Your task to perform on an android device: Check the weather Image 0: 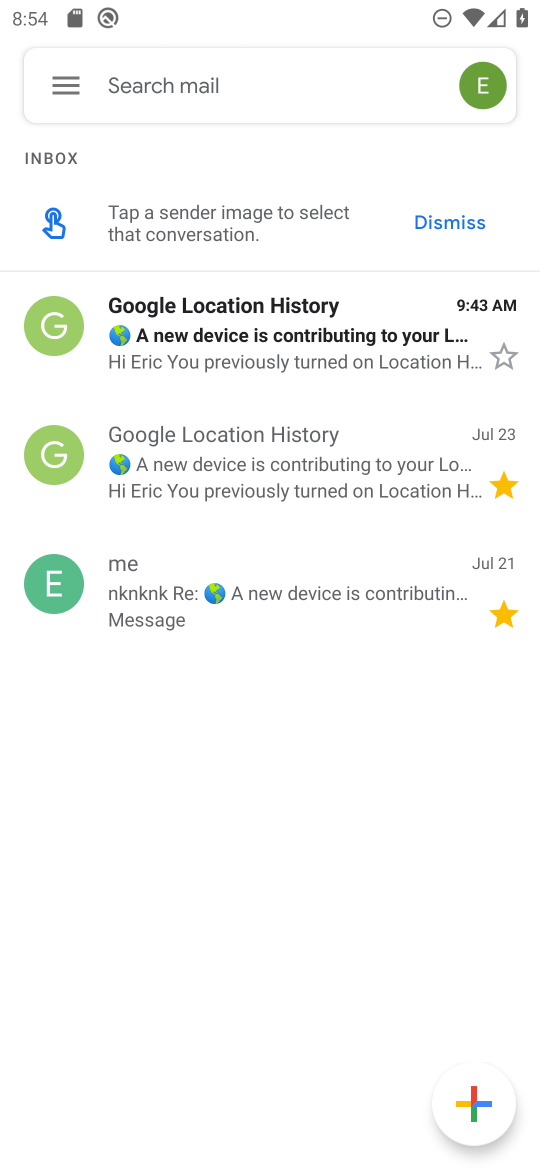
Step 0: press home button
Your task to perform on an android device: Check the weather Image 1: 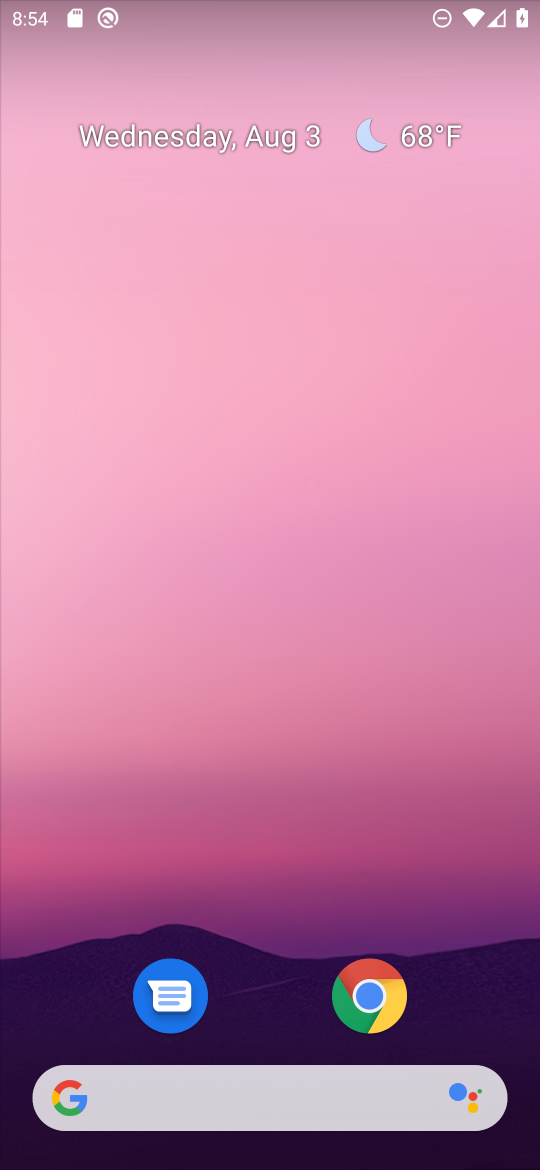
Step 1: click (420, 142)
Your task to perform on an android device: Check the weather Image 2: 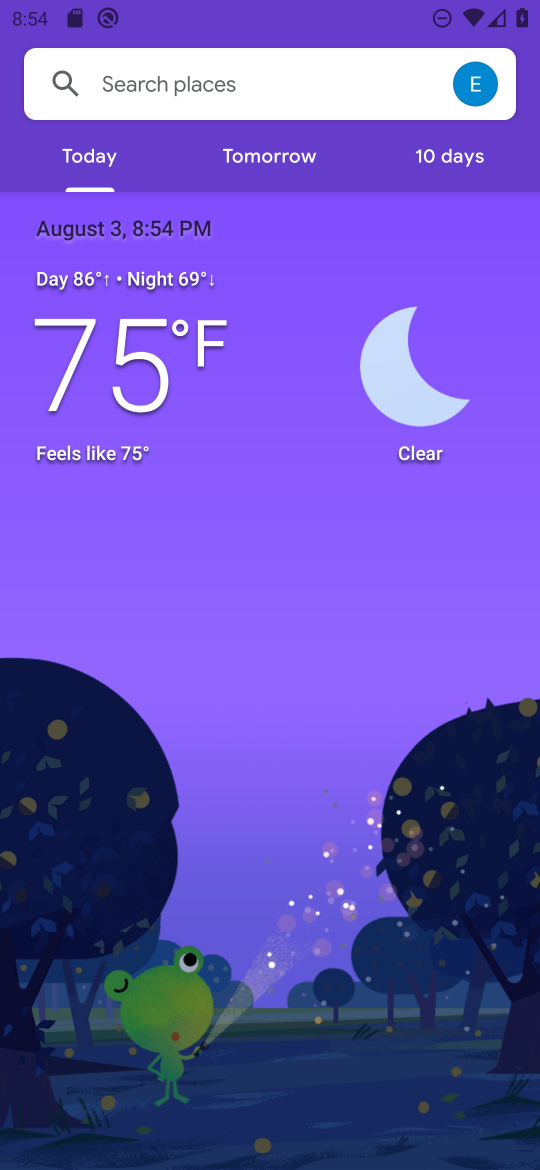
Step 2: task complete